Your task to perform on an android device: Go to wifi settings Image 0: 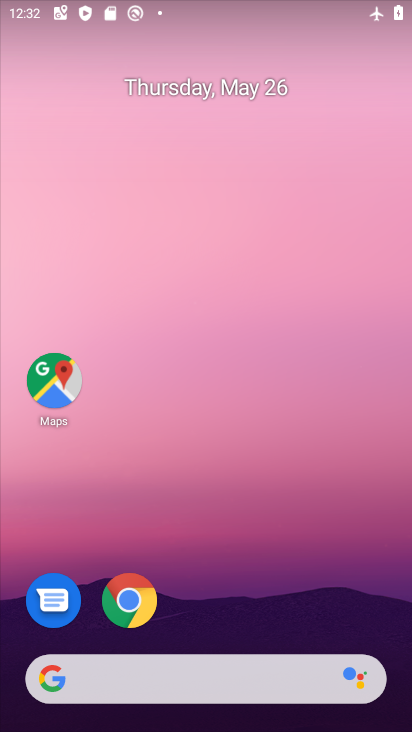
Step 0: drag from (281, 578) to (226, 178)
Your task to perform on an android device: Go to wifi settings Image 1: 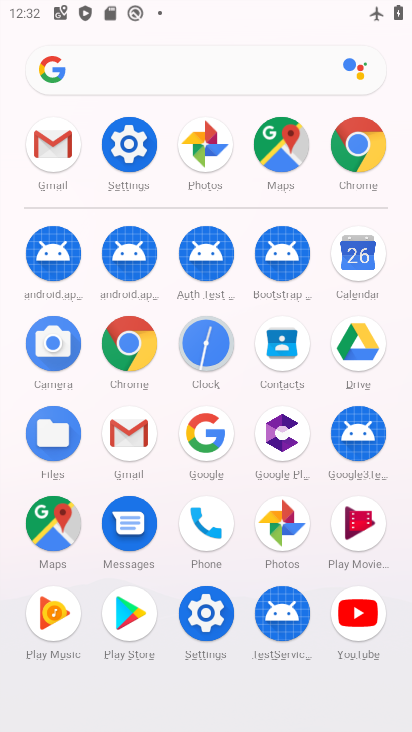
Step 1: click (131, 139)
Your task to perform on an android device: Go to wifi settings Image 2: 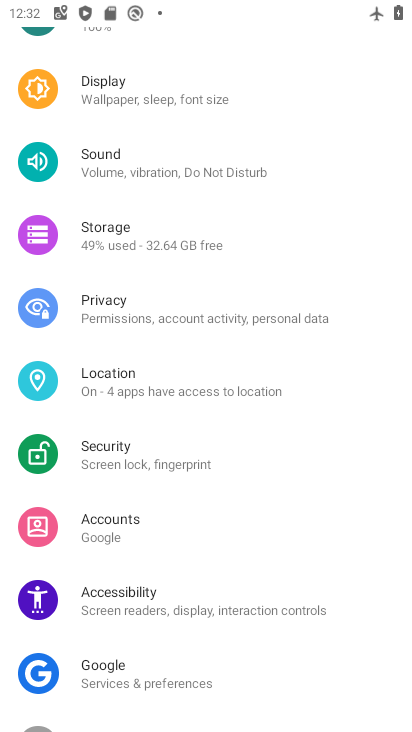
Step 2: drag from (163, 200) to (163, 638)
Your task to perform on an android device: Go to wifi settings Image 3: 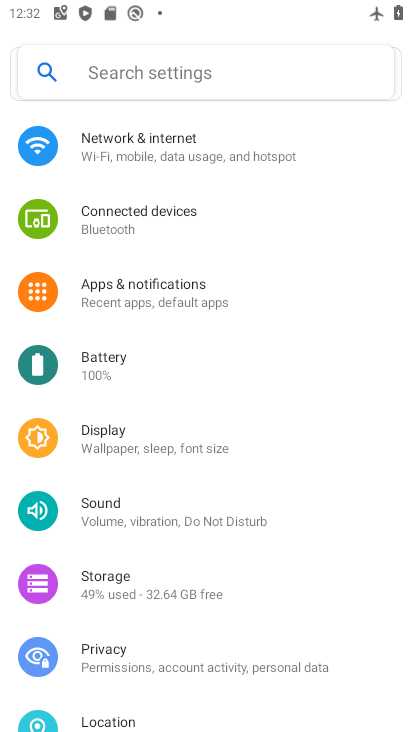
Step 3: click (175, 154)
Your task to perform on an android device: Go to wifi settings Image 4: 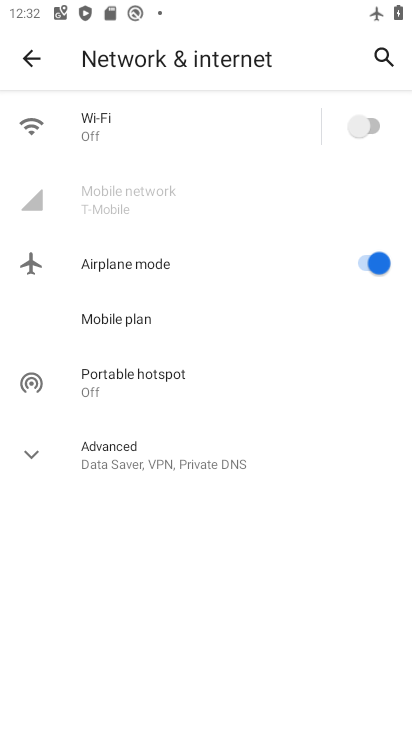
Step 4: click (263, 119)
Your task to perform on an android device: Go to wifi settings Image 5: 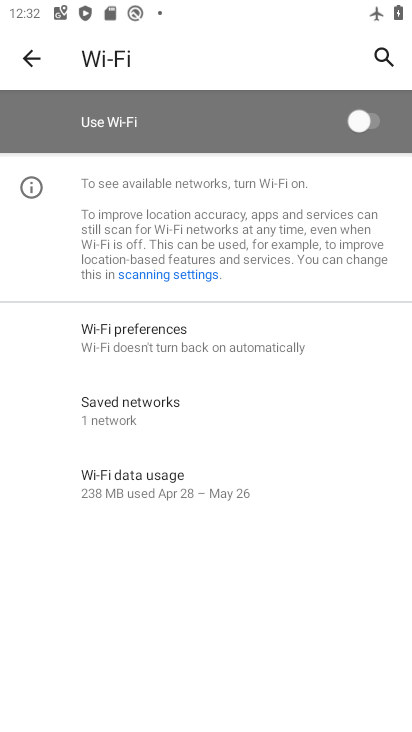
Step 5: click (358, 125)
Your task to perform on an android device: Go to wifi settings Image 6: 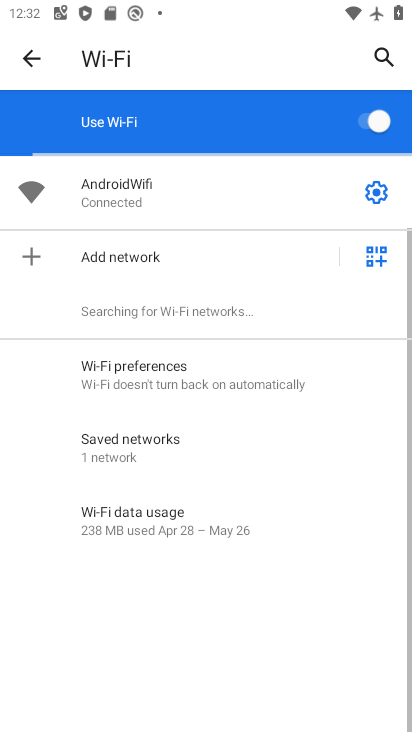
Step 6: click (374, 196)
Your task to perform on an android device: Go to wifi settings Image 7: 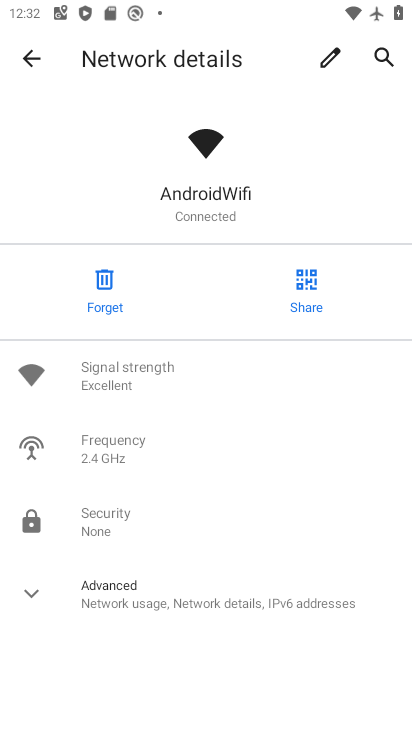
Step 7: task complete